Your task to perform on an android device: Open calendar and show me the fourth week of next month Image 0: 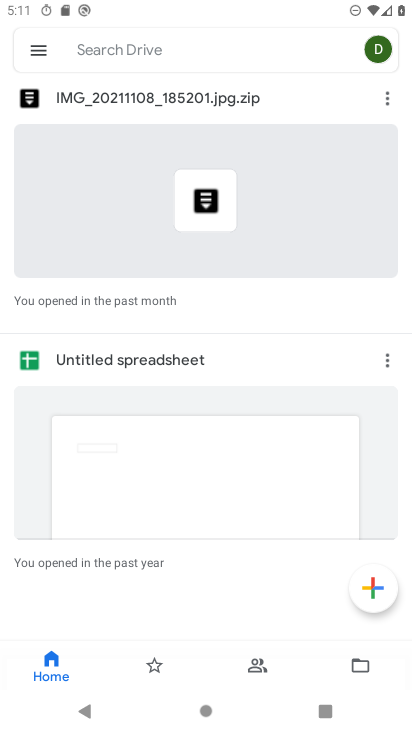
Step 0: press home button
Your task to perform on an android device: Open calendar and show me the fourth week of next month Image 1: 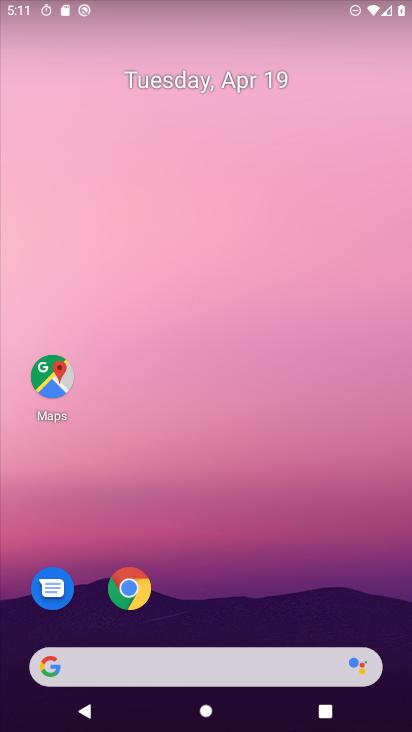
Step 1: drag from (210, 118) to (197, 52)
Your task to perform on an android device: Open calendar and show me the fourth week of next month Image 2: 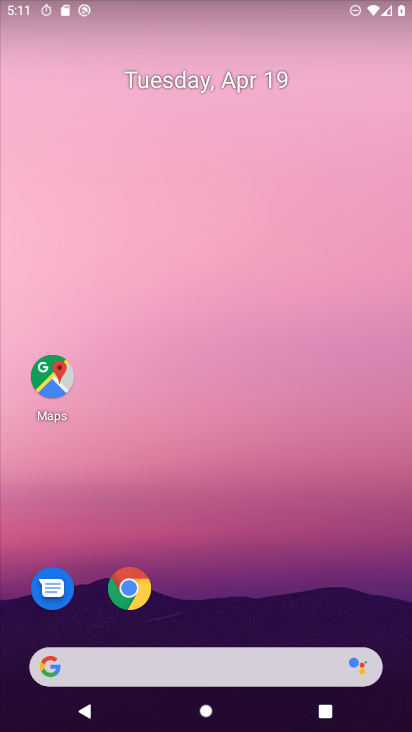
Step 2: drag from (229, 563) to (226, 114)
Your task to perform on an android device: Open calendar and show me the fourth week of next month Image 3: 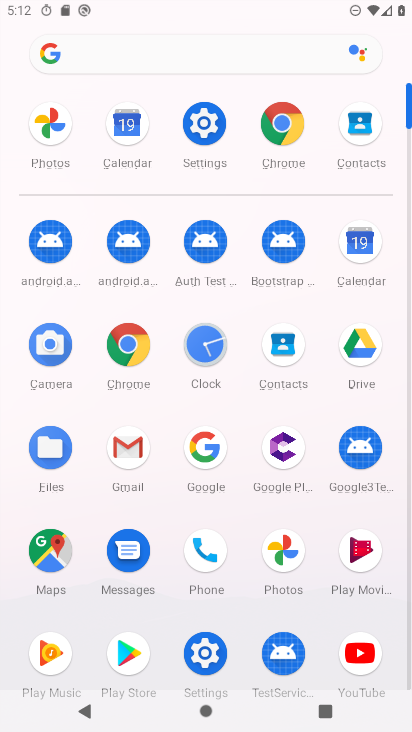
Step 3: click (360, 238)
Your task to perform on an android device: Open calendar and show me the fourth week of next month Image 4: 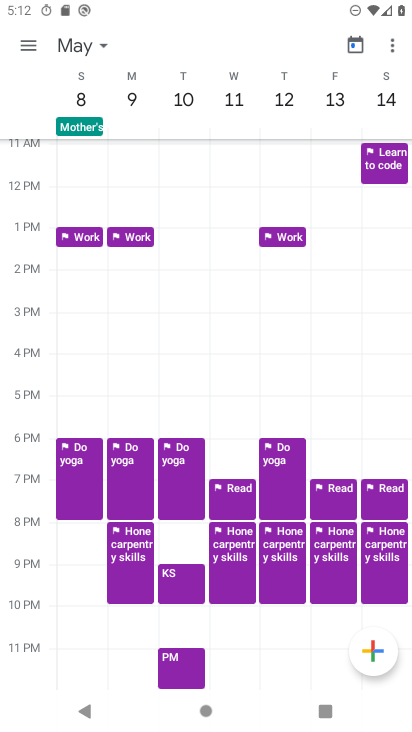
Step 4: click (96, 40)
Your task to perform on an android device: Open calendar and show me the fourth week of next month Image 5: 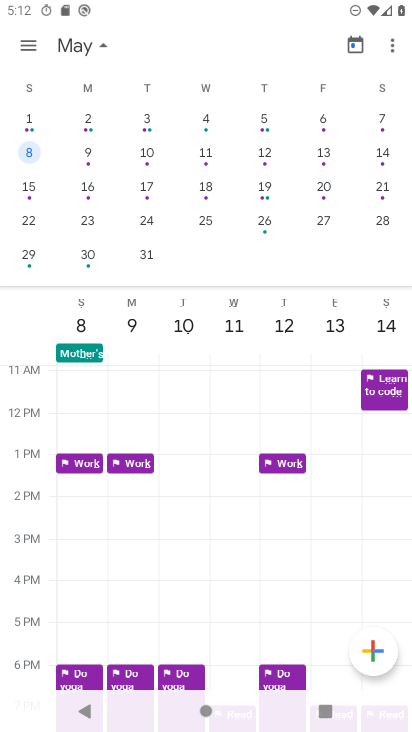
Step 5: click (36, 222)
Your task to perform on an android device: Open calendar and show me the fourth week of next month Image 6: 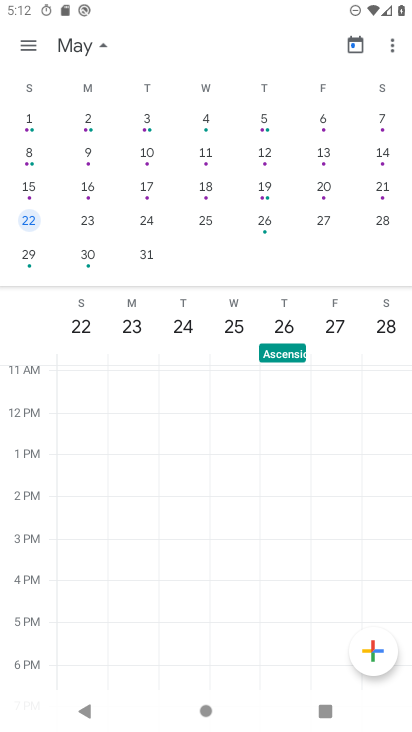
Step 6: task complete